Your task to perform on an android device: toggle notifications settings in the gmail app Image 0: 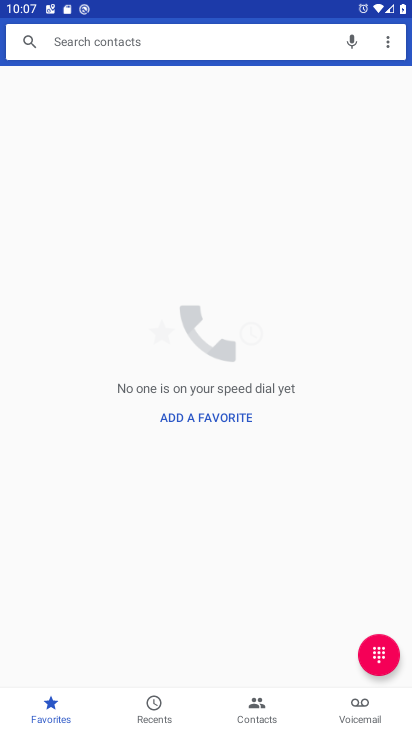
Step 0: press home button
Your task to perform on an android device: toggle notifications settings in the gmail app Image 1: 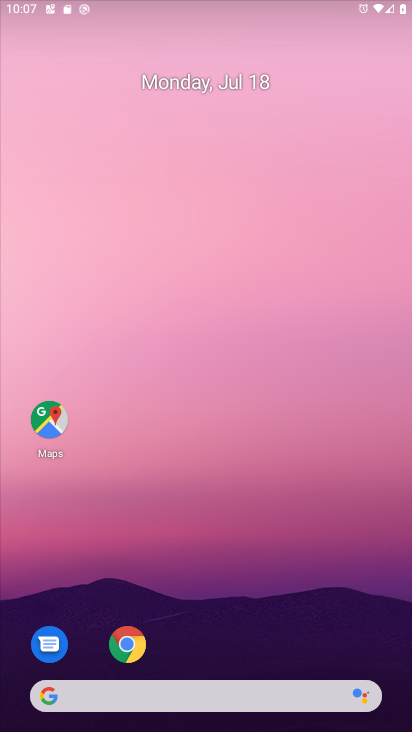
Step 1: drag from (237, 662) to (237, 114)
Your task to perform on an android device: toggle notifications settings in the gmail app Image 2: 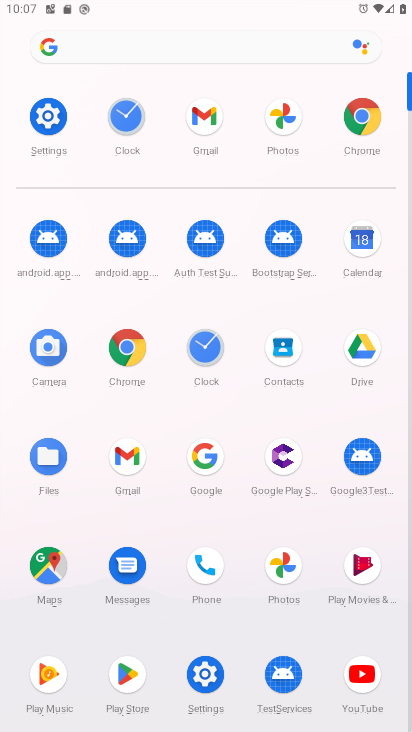
Step 2: click (198, 127)
Your task to perform on an android device: toggle notifications settings in the gmail app Image 3: 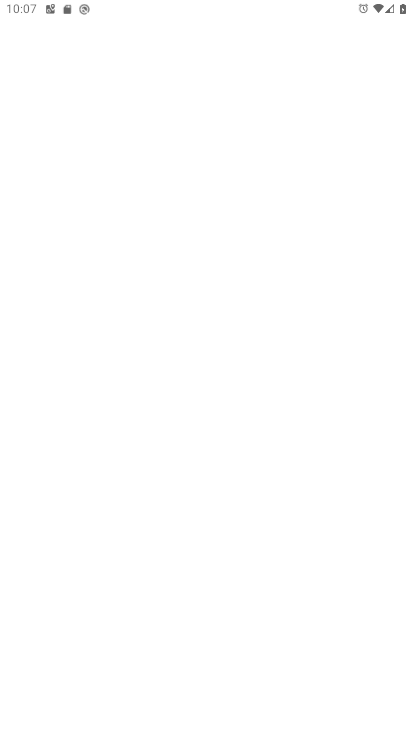
Step 3: task complete